Your task to perform on an android device: turn on bluetooth scan Image 0: 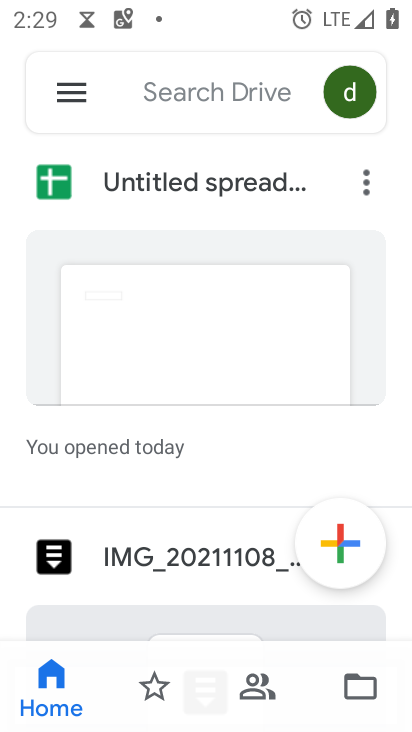
Step 0: press back button
Your task to perform on an android device: turn on bluetooth scan Image 1: 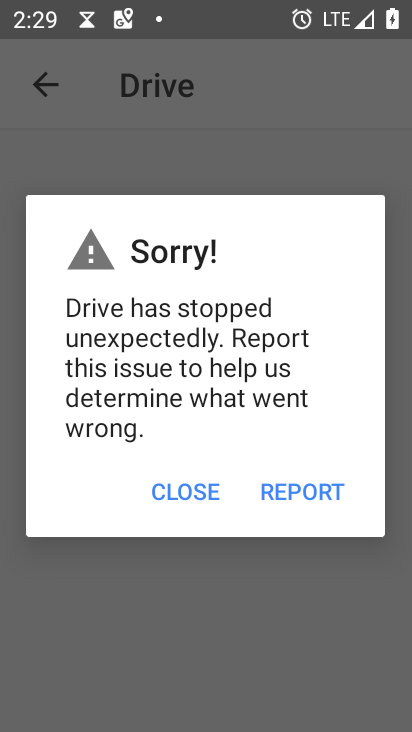
Step 1: press home button
Your task to perform on an android device: turn on bluetooth scan Image 2: 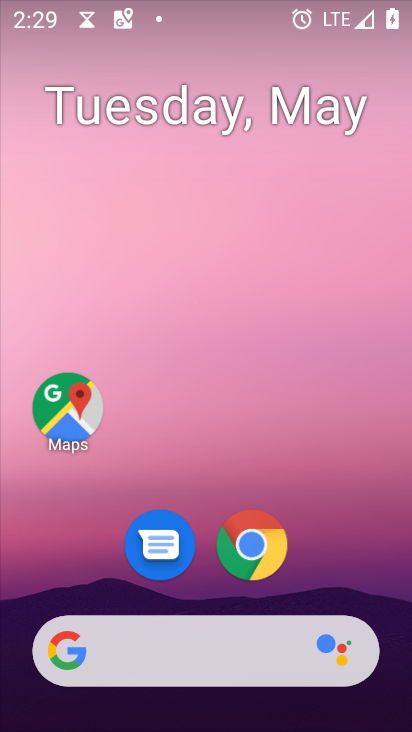
Step 2: drag from (340, 556) to (233, 74)
Your task to perform on an android device: turn on bluetooth scan Image 3: 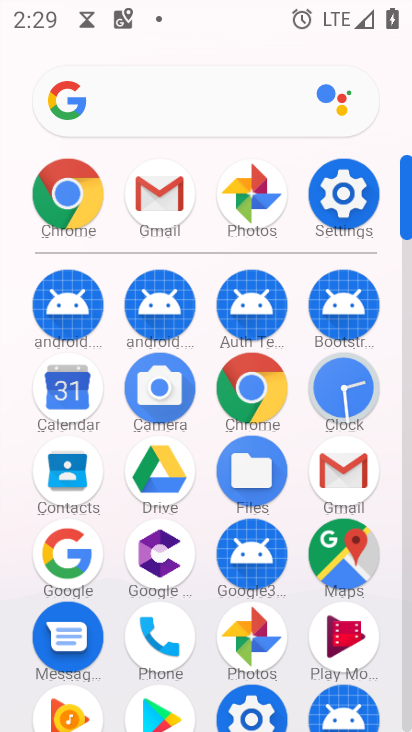
Step 3: drag from (2, 539) to (9, 218)
Your task to perform on an android device: turn on bluetooth scan Image 4: 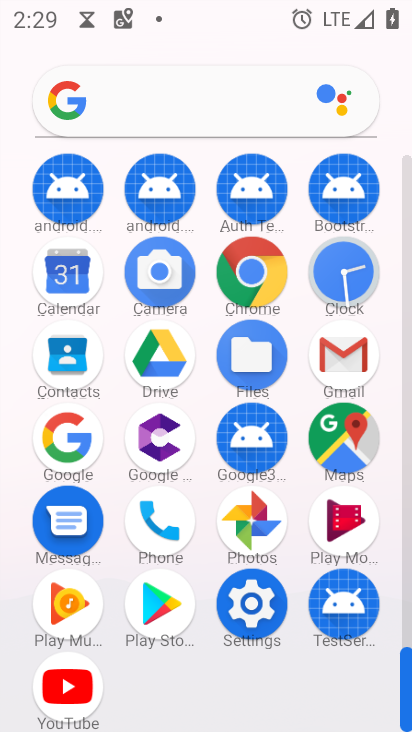
Step 4: click (251, 599)
Your task to perform on an android device: turn on bluetooth scan Image 5: 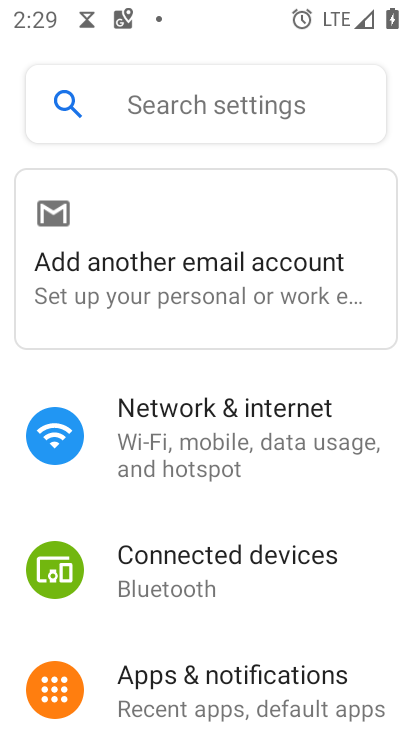
Step 5: drag from (298, 634) to (300, 239)
Your task to perform on an android device: turn on bluetooth scan Image 6: 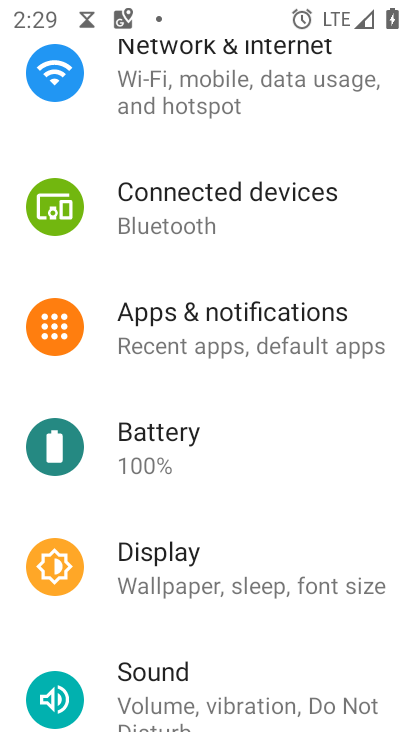
Step 6: drag from (332, 619) to (310, 210)
Your task to perform on an android device: turn on bluetooth scan Image 7: 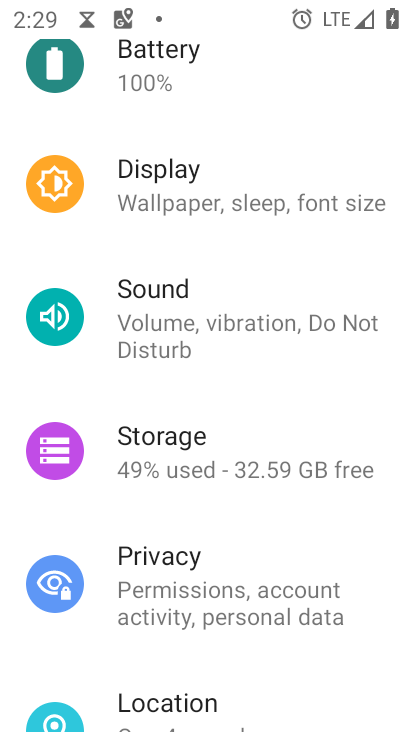
Step 7: click (190, 690)
Your task to perform on an android device: turn on bluetooth scan Image 8: 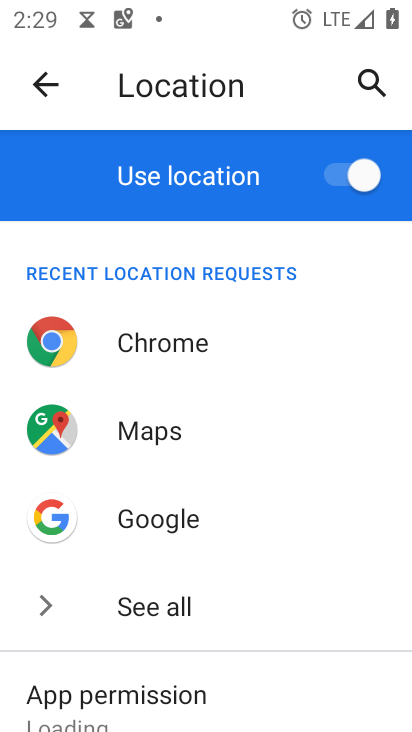
Step 8: drag from (239, 527) to (247, 177)
Your task to perform on an android device: turn on bluetooth scan Image 9: 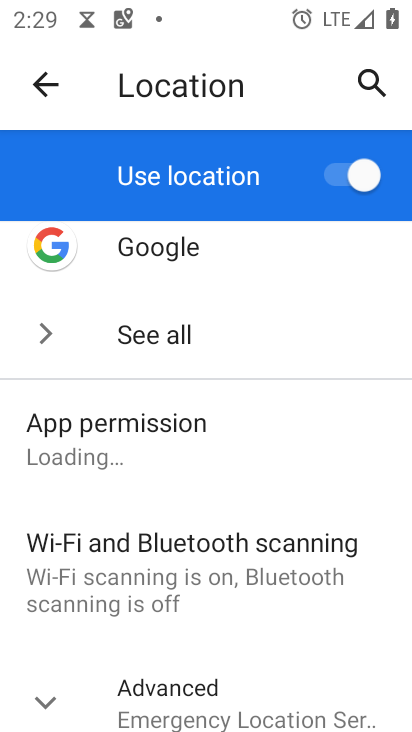
Step 9: click (193, 573)
Your task to perform on an android device: turn on bluetooth scan Image 10: 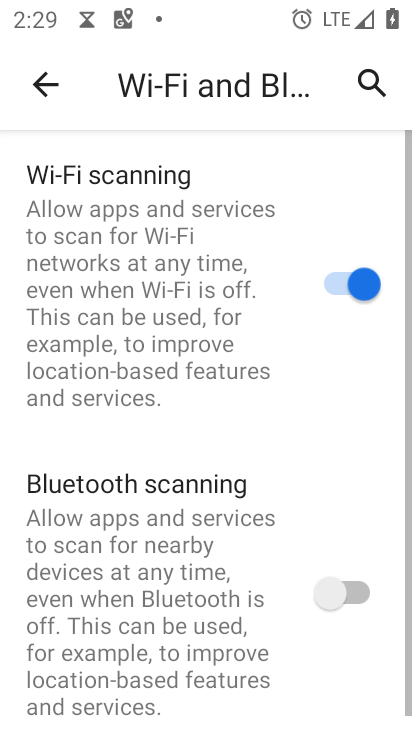
Step 10: click (354, 574)
Your task to perform on an android device: turn on bluetooth scan Image 11: 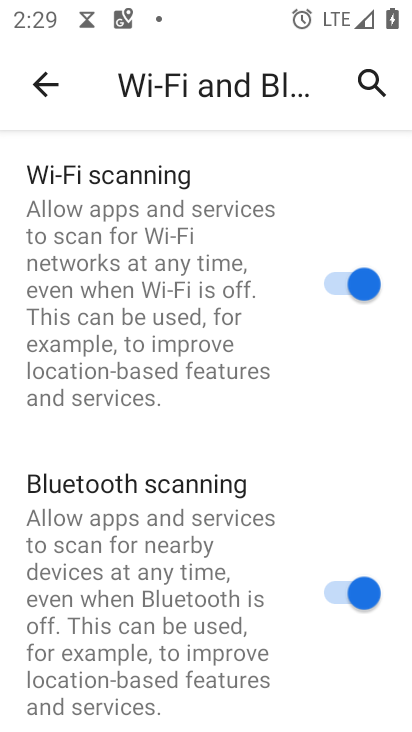
Step 11: task complete